Your task to perform on an android device: open a bookmark in the chrome app Image 0: 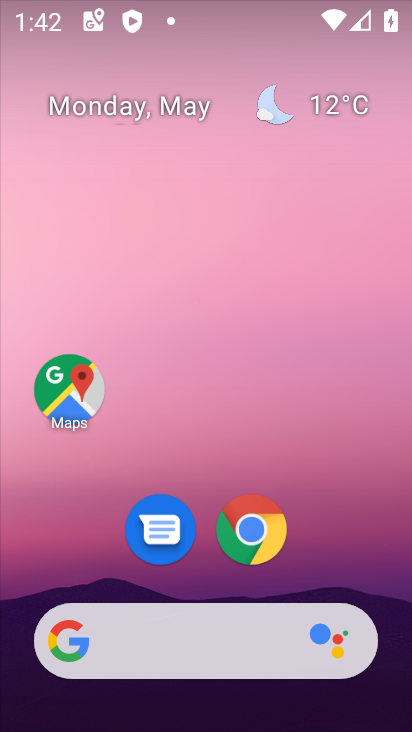
Step 0: click (261, 540)
Your task to perform on an android device: open a bookmark in the chrome app Image 1: 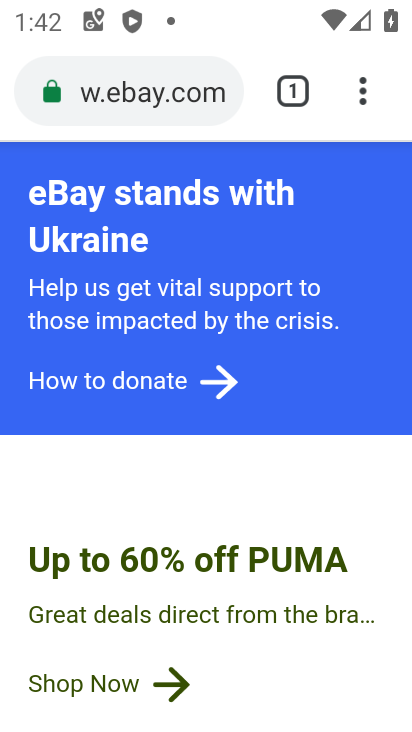
Step 1: click (362, 97)
Your task to perform on an android device: open a bookmark in the chrome app Image 2: 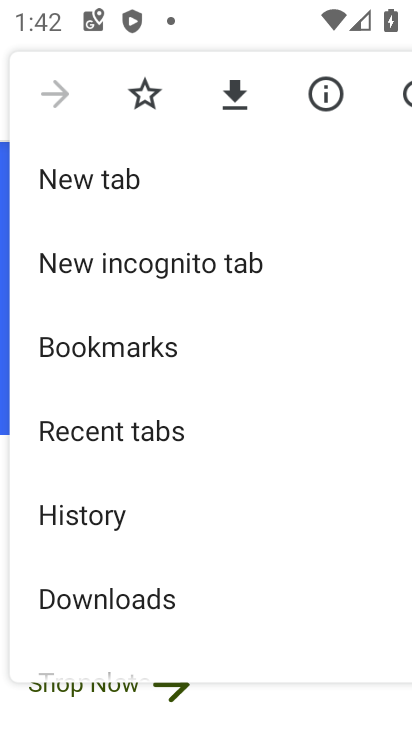
Step 2: click (131, 352)
Your task to perform on an android device: open a bookmark in the chrome app Image 3: 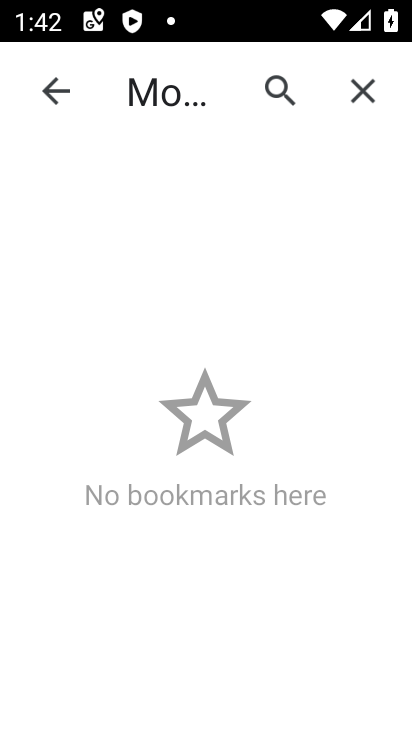
Step 3: task complete